Your task to perform on an android device: Open Wikipedia Image 0: 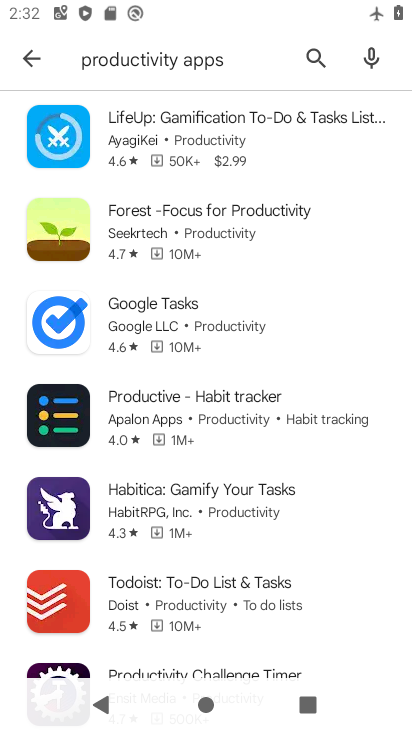
Step 0: press home button
Your task to perform on an android device: Open Wikipedia Image 1: 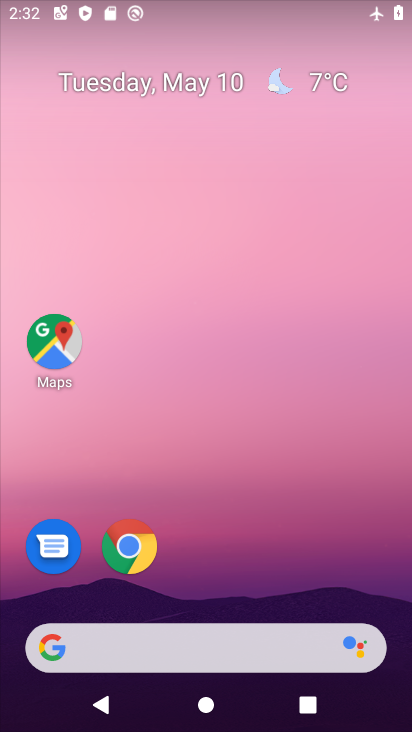
Step 1: drag from (255, 511) to (193, 38)
Your task to perform on an android device: Open Wikipedia Image 2: 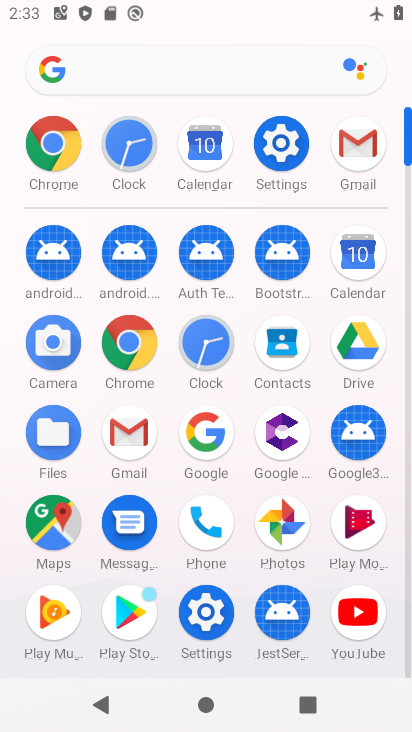
Step 2: click (54, 139)
Your task to perform on an android device: Open Wikipedia Image 3: 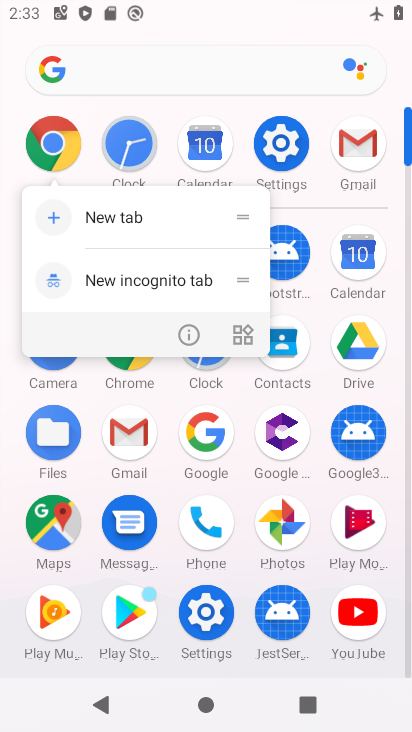
Step 3: click (55, 140)
Your task to perform on an android device: Open Wikipedia Image 4: 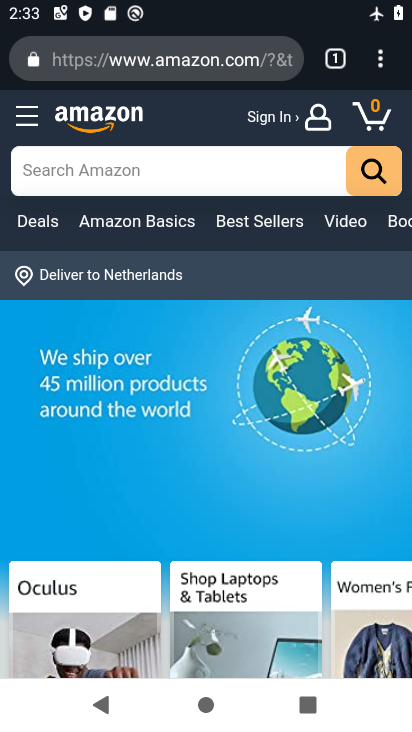
Step 4: click (161, 72)
Your task to perform on an android device: Open Wikipedia Image 5: 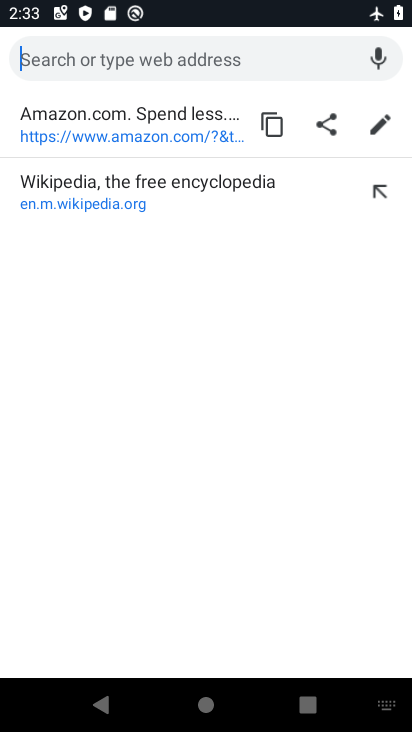
Step 5: click (155, 184)
Your task to perform on an android device: Open Wikipedia Image 6: 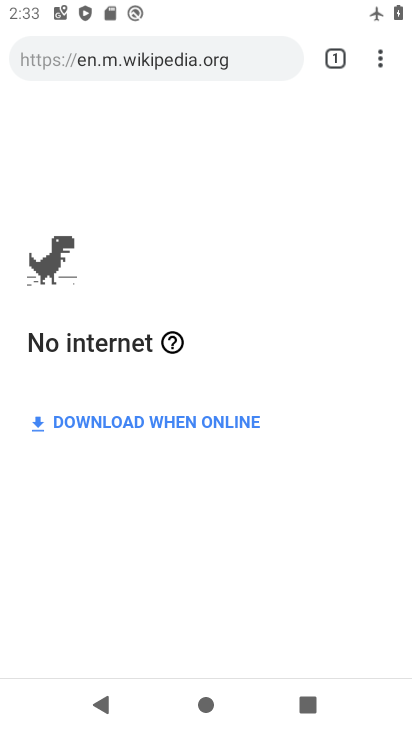
Step 6: task complete